Your task to perform on an android device: change notification settings in the gmail app Image 0: 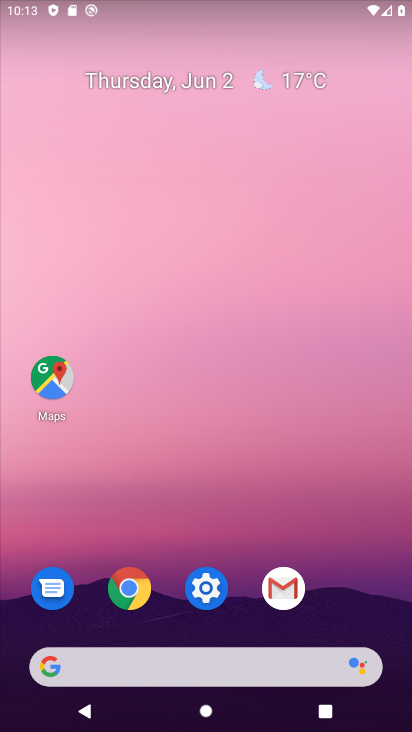
Step 0: click (280, 601)
Your task to perform on an android device: change notification settings in the gmail app Image 1: 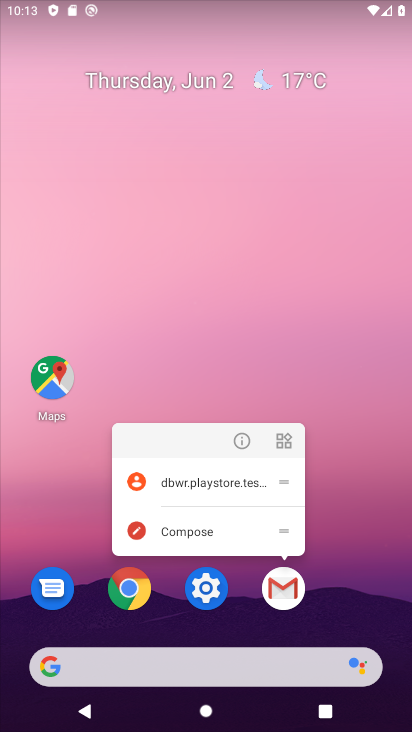
Step 1: click (280, 601)
Your task to perform on an android device: change notification settings in the gmail app Image 2: 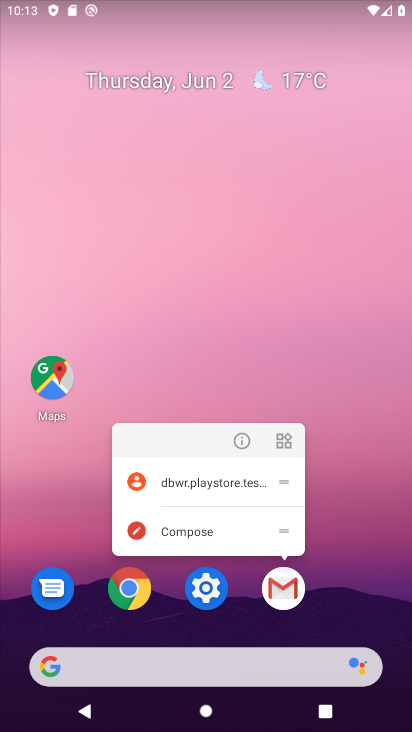
Step 2: click (280, 599)
Your task to perform on an android device: change notification settings in the gmail app Image 3: 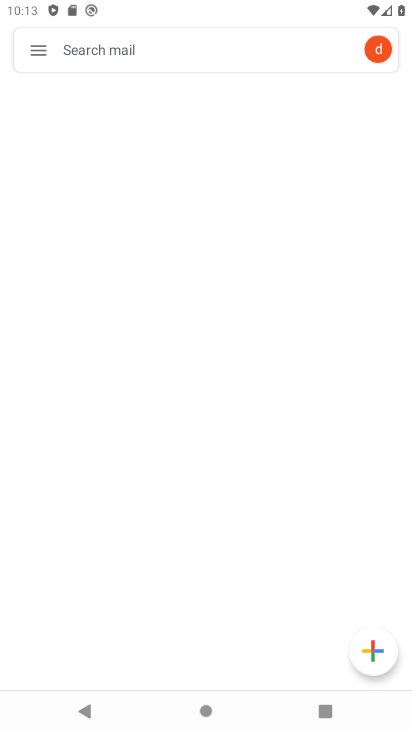
Step 3: click (32, 60)
Your task to perform on an android device: change notification settings in the gmail app Image 4: 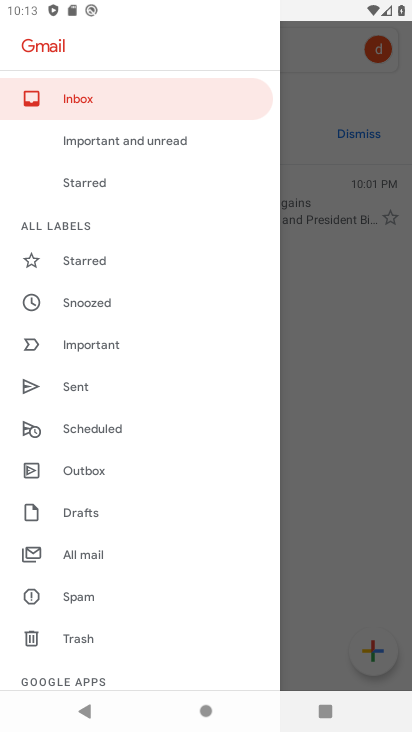
Step 4: drag from (130, 618) to (144, 536)
Your task to perform on an android device: change notification settings in the gmail app Image 5: 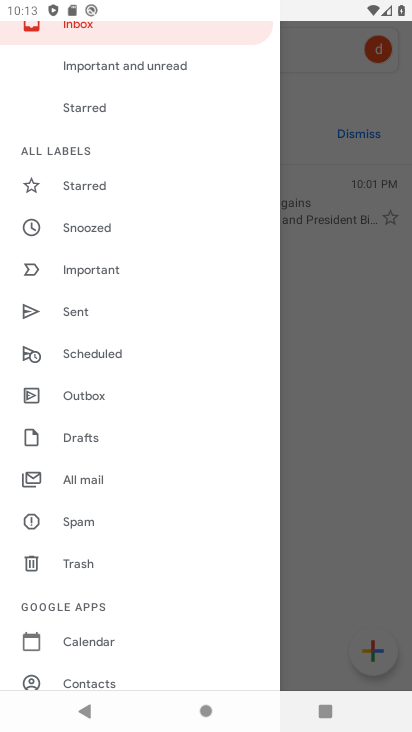
Step 5: drag from (115, 594) to (124, 527)
Your task to perform on an android device: change notification settings in the gmail app Image 6: 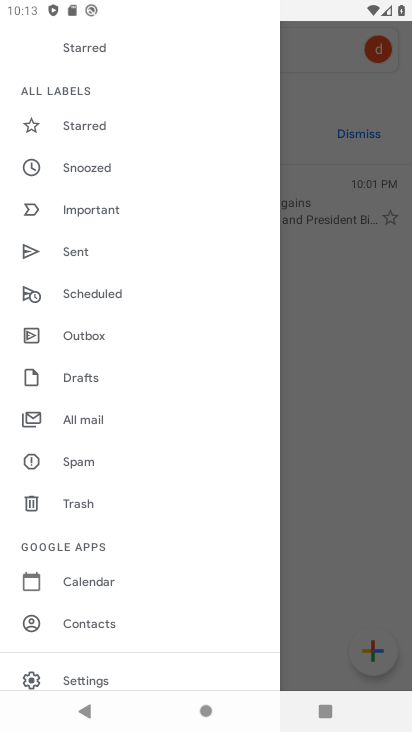
Step 6: click (82, 679)
Your task to perform on an android device: change notification settings in the gmail app Image 7: 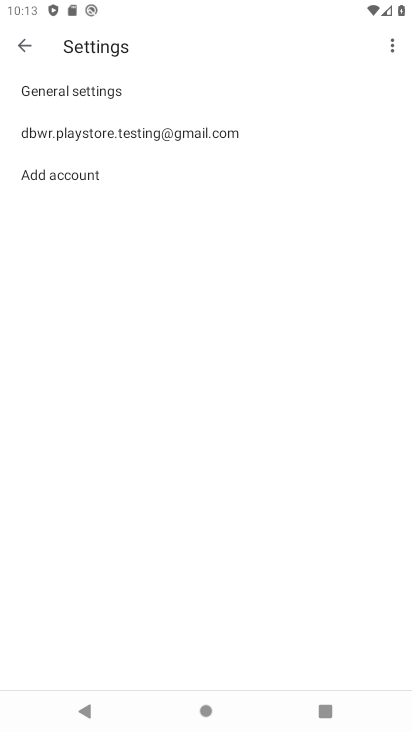
Step 7: click (141, 128)
Your task to perform on an android device: change notification settings in the gmail app Image 8: 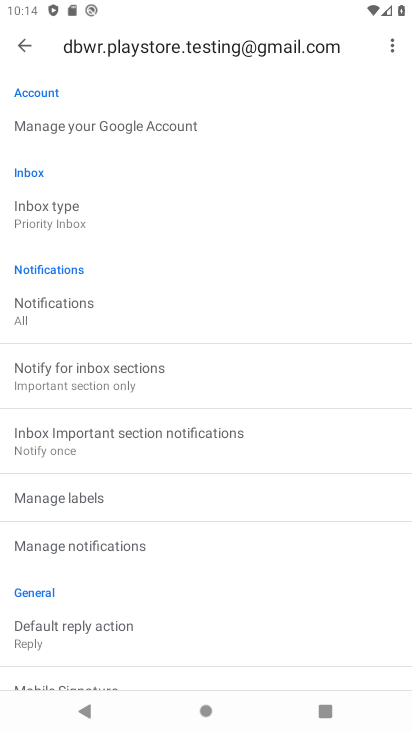
Step 8: click (68, 298)
Your task to perform on an android device: change notification settings in the gmail app Image 9: 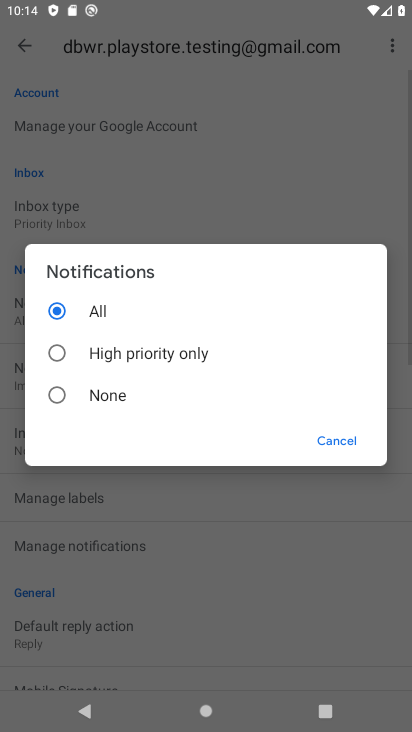
Step 9: click (102, 355)
Your task to perform on an android device: change notification settings in the gmail app Image 10: 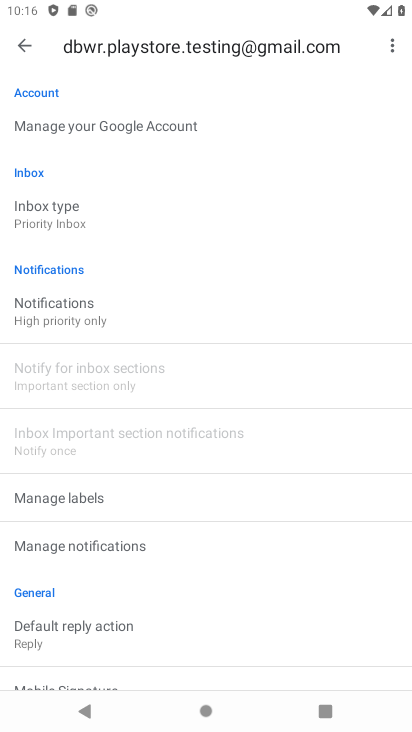
Step 10: task complete